Your task to perform on an android device: Open notification settings Image 0: 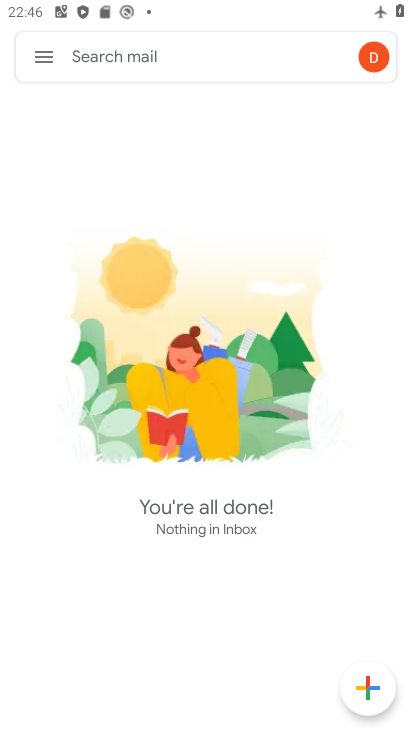
Step 0: drag from (306, 4) to (302, 225)
Your task to perform on an android device: Open notification settings Image 1: 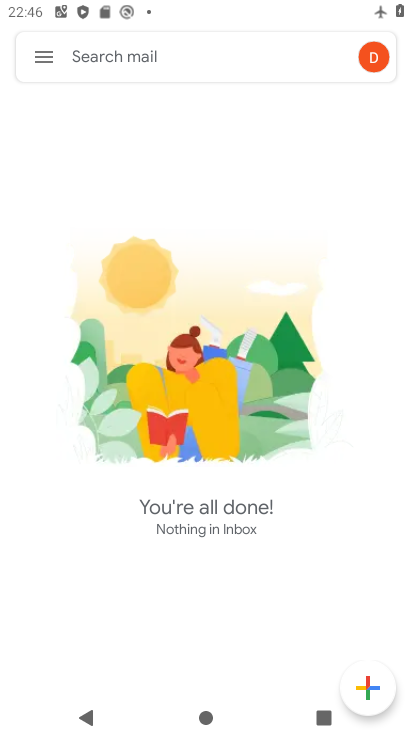
Step 1: click (371, 125)
Your task to perform on an android device: Open notification settings Image 2: 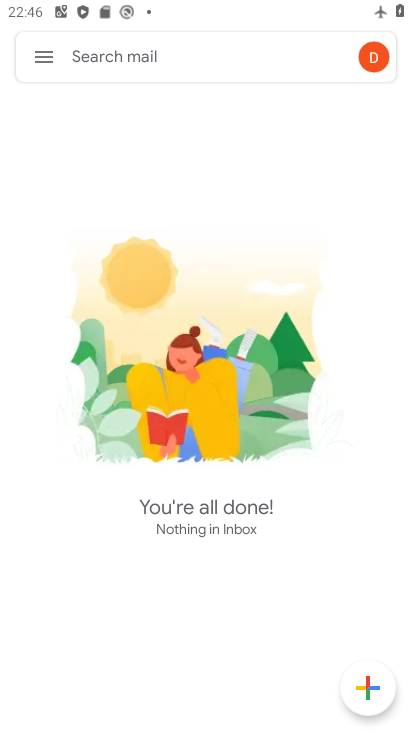
Step 2: click (371, 125)
Your task to perform on an android device: Open notification settings Image 3: 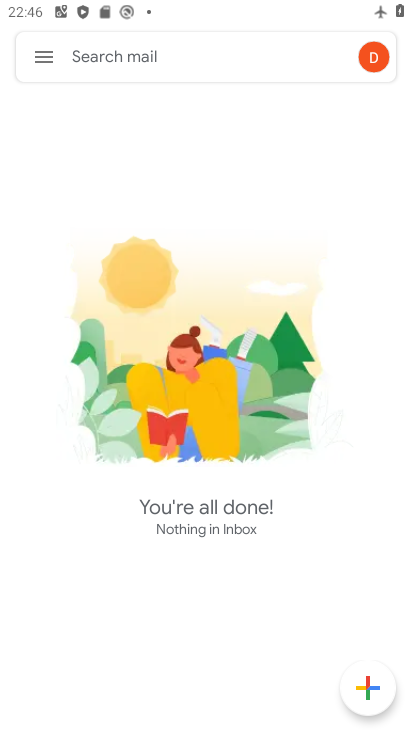
Step 3: drag from (341, 6) to (376, 213)
Your task to perform on an android device: Open notification settings Image 4: 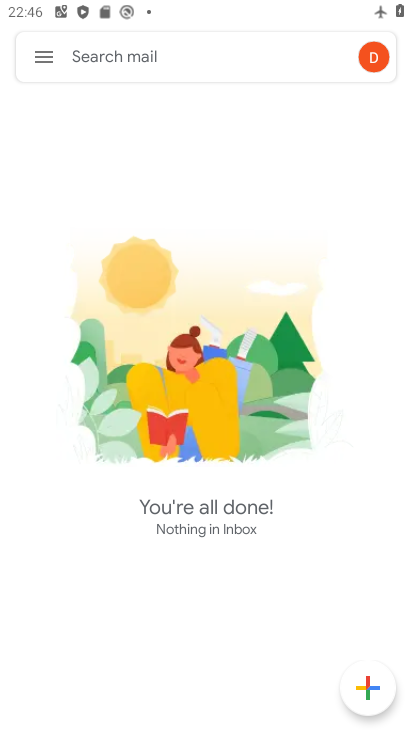
Step 4: click (379, 111)
Your task to perform on an android device: Open notification settings Image 5: 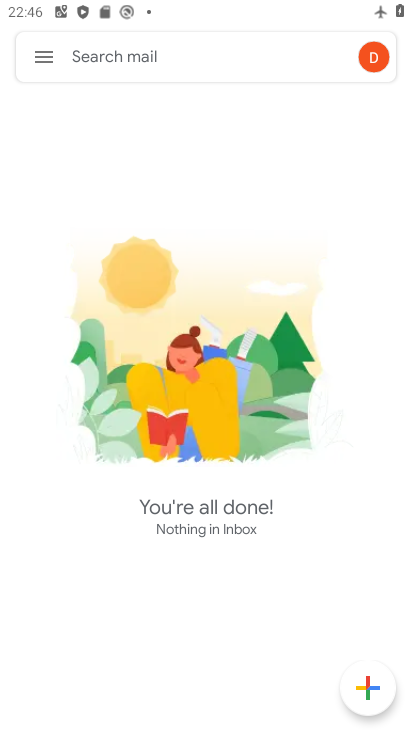
Step 5: drag from (317, 0) to (356, 239)
Your task to perform on an android device: Open notification settings Image 6: 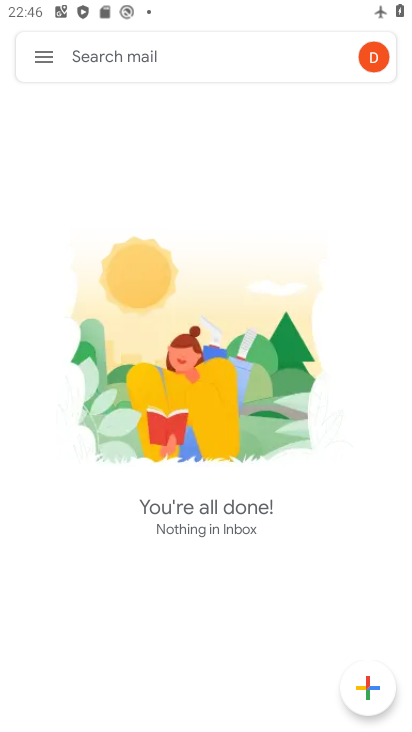
Step 6: drag from (338, 3) to (359, 223)
Your task to perform on an android device: Open notification settings Image 7: 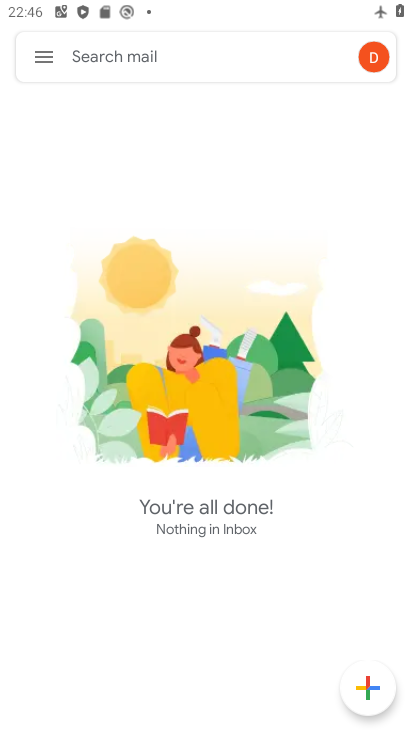
Step 7: drag from (310, 3) to (334, 596)
Your task to perform on an android device: Open notification settings Image 8: 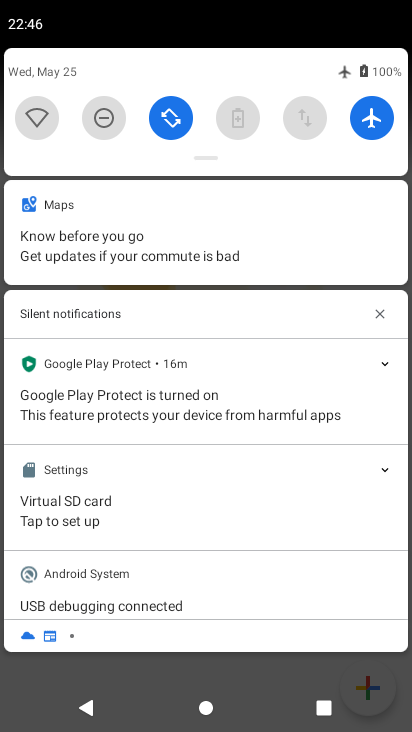
Step 8: click (382, 126)
Your task to perform on an android device: Open notification settings Image 9: 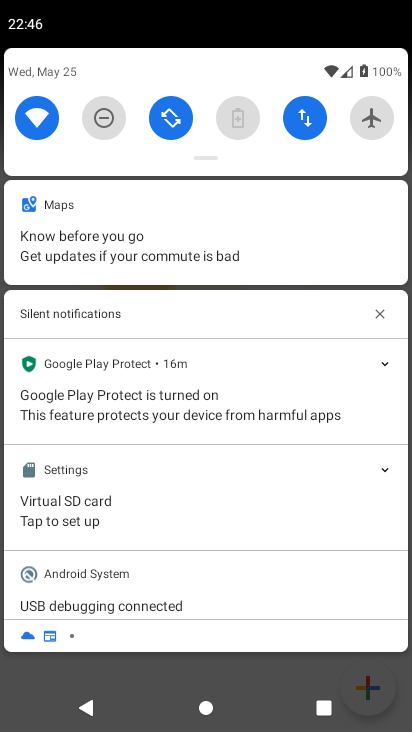
Step 9: press home button
Your task to perform on an android device: Open notification settings Image 10: 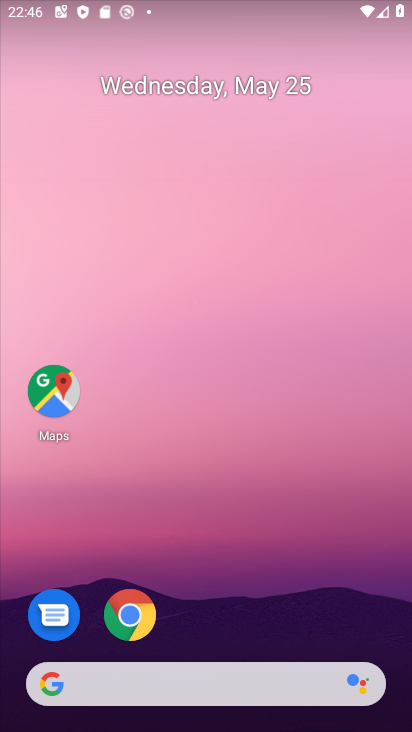
Step 10: drag from (284, 600) to (227, 183)
Your task to perform on an android device: Open notification settings Image 11: 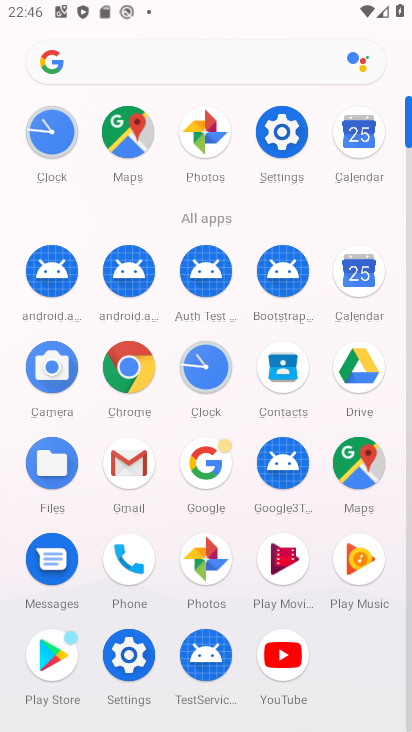
Step 11: click (277, 141)
Your task to perform on an android device: Open notification settings Image 12: 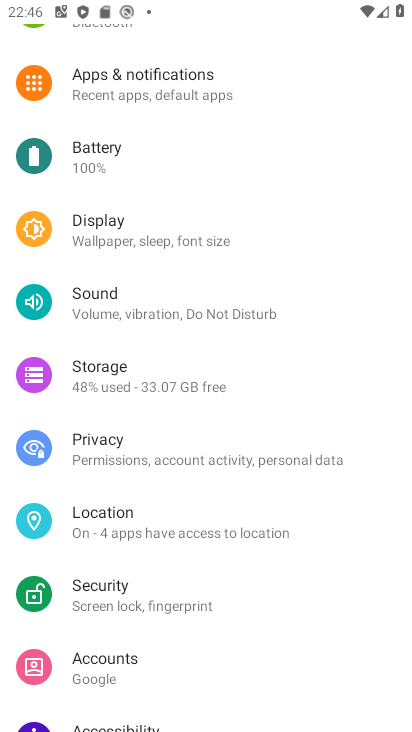
Step 12: click (115, 85)
Your task to perform on an android device: Open notification settings Image 13: 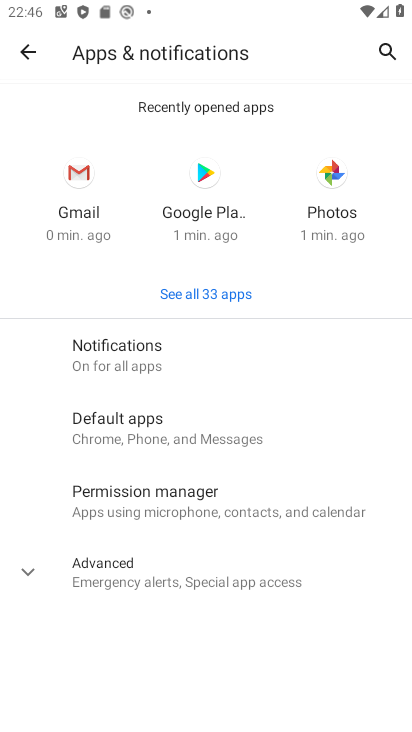
Step 13: click (120, 349)
Your task to perform on an android device: Open notification settings Image 14: 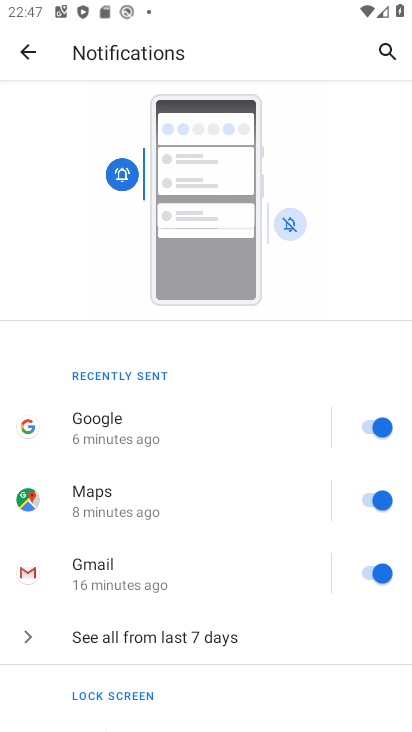
Step 14: task complete